Your task to perform on an android device: visit the assistant section in the google photos Image 0: 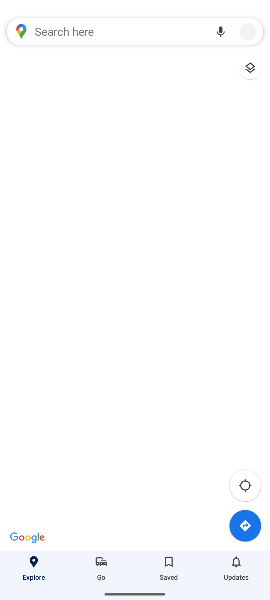
Step 0: click (162, 73)
Your task to perform on an android device: visit the assistant section in the google photos Image 1: 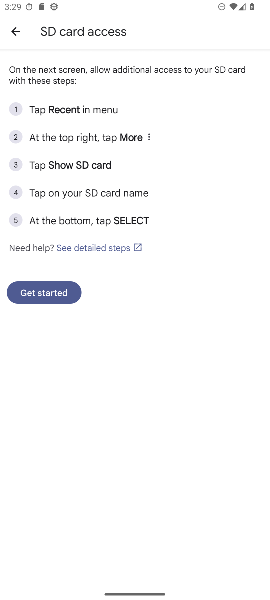
Step 1: press home button
Your task to perform on an android device: visit the assistant section in the google photos Image 2: 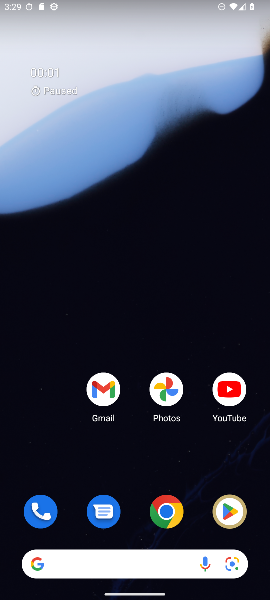
Step 2: drag from (130, 476) to (142, 157)
Your task to perform on an android device: visit the assistant section in the google photos Image 3: 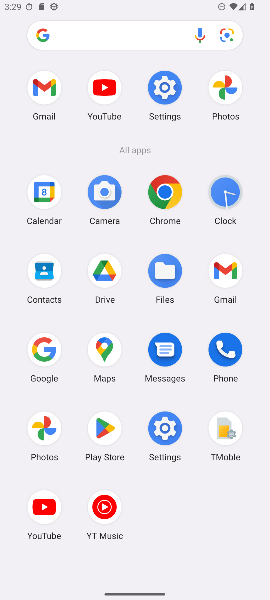
Step 3: click (219, 268)
Your task to perform on an android device: visit the assistant section in the google photos Image 4: 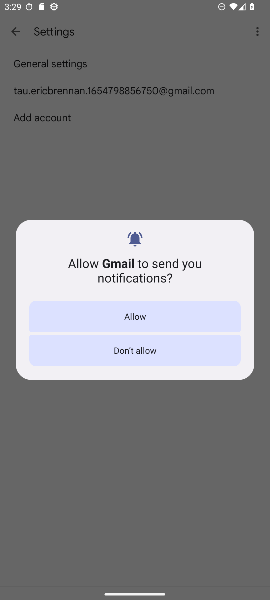
Step 4: press home button
Your task to perform on an android device: visit the assistant section in the google photos Image 5: 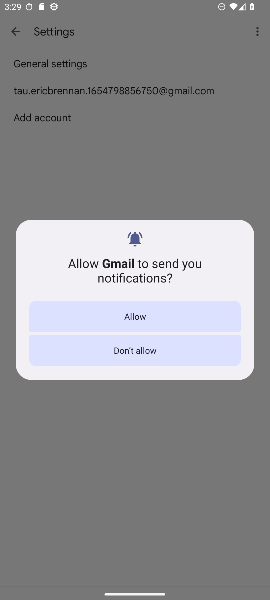
Step 5: press home button
Your task to perform on an android device: visit the assistant section in the google photos Image 6: 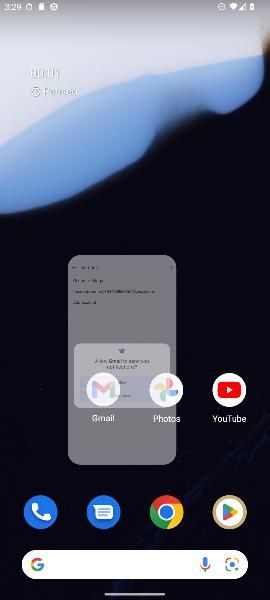
Step 6: press home button
Your task to perform on an android device: visit the assistant section in the google photos Image 7: 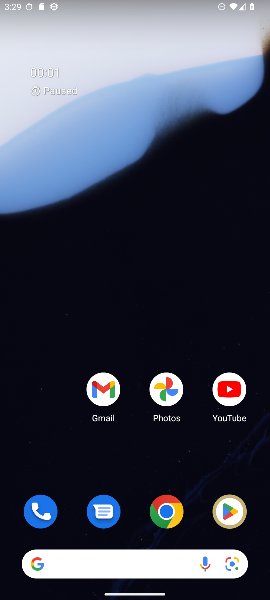
Step 7: click (170, 393)
Your task to perform on an android device: visit the assistant section in the google photos Image 8: 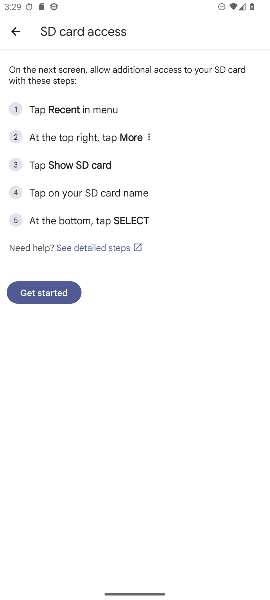
Step 8: click (9, 29)
Your task to perform on an android device: visit the assistant section in the google photos Image 9: 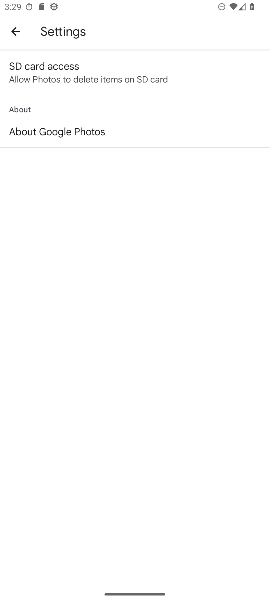
Step 9: click (18, 30)
Your task to perform on an android device: visit the assistant section in the google photos Image 10: 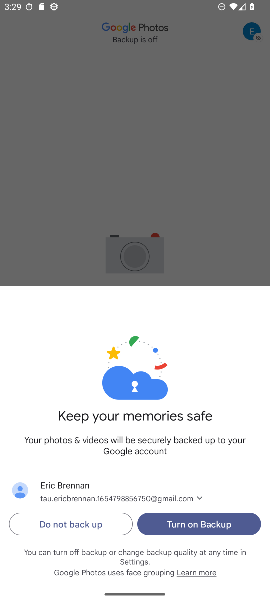
Step 10: click (240, 527)
Your task to perform on an android device: visit the assistant section in the google photos Image 11: 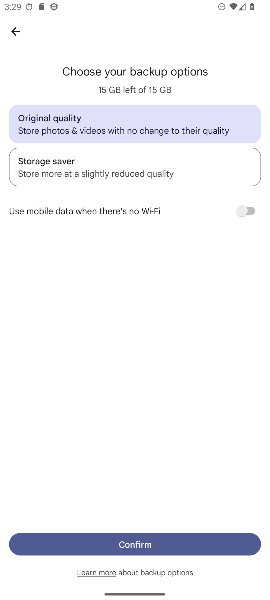
Step 11: click (204, 540)
Your task to perform on an android device: visit the assistant section in the google photos Image 12: 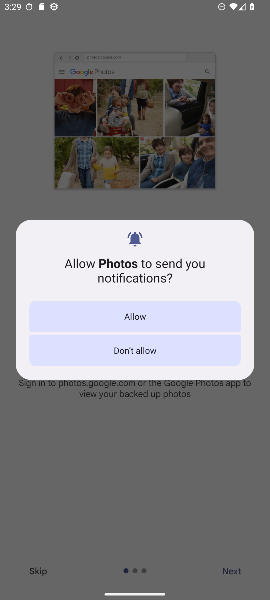
Step 12: click (154, 350)
Your task to perform on an android device: visit the assistant section in the google photos Image 13: 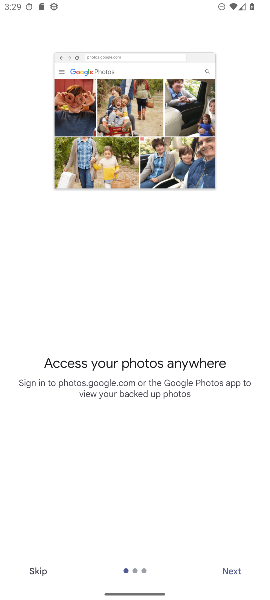
Step 13: click (243, 573)
Your task to perform on an android device: visit the assistant section in the google photos Image 14: 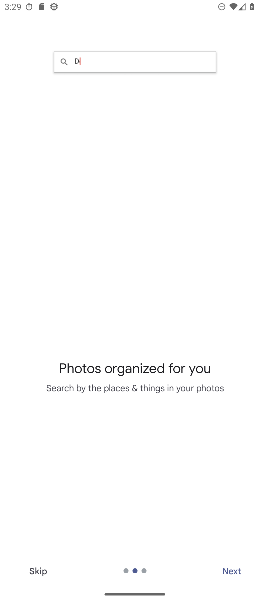
Step 14: click (245, 569)
Your task to perform on an android device: visit the assistant section in the google photos Image 15: 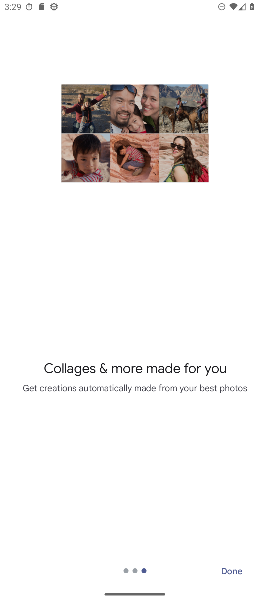
Step 15: click (245, 569)
Your task to perform on an android device: visit the assistant section in the google photos Image 16: 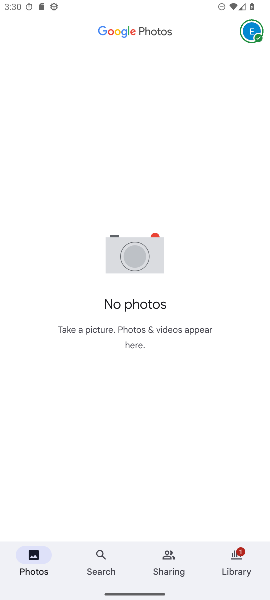
Step 16: click (245, 569)
Your task to perform on an android device: visit the assistant section in the google photos Image 17: 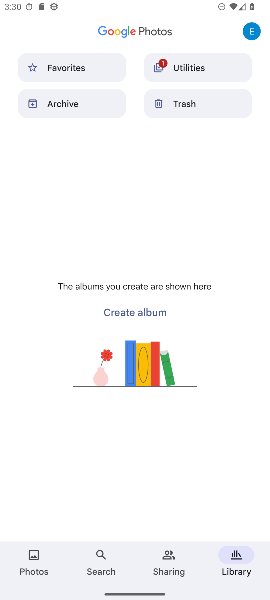
Step 17: click (174, 62)
Your task to perform on an android device: visit the assistant section in the google photos Image 18: 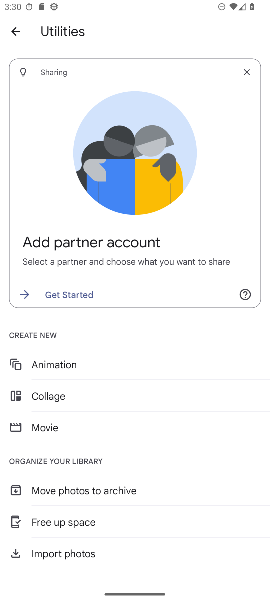
Step 18: task complete